Your task to perform on an android device: check data usage Image 0: 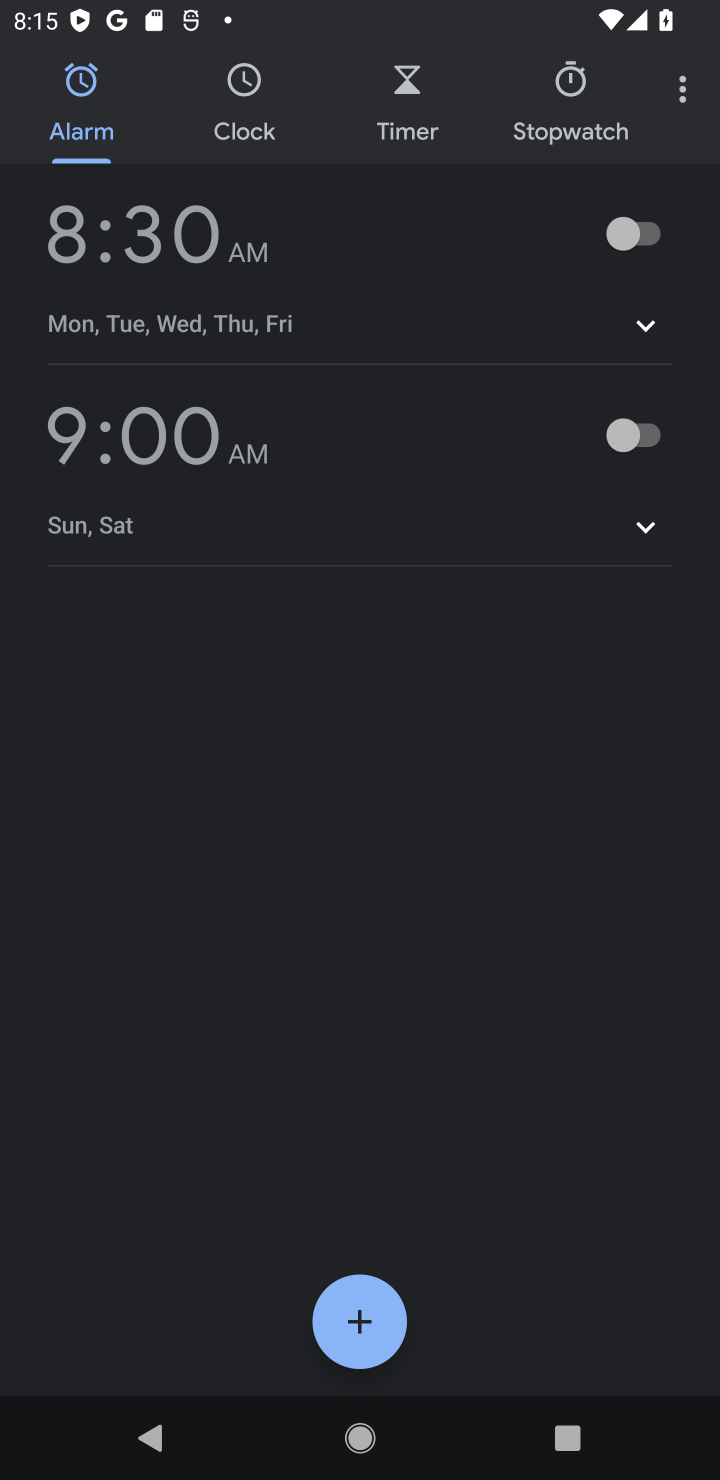
Step 0: press home button
Your task to perform on an android device: check data usage Image 1: 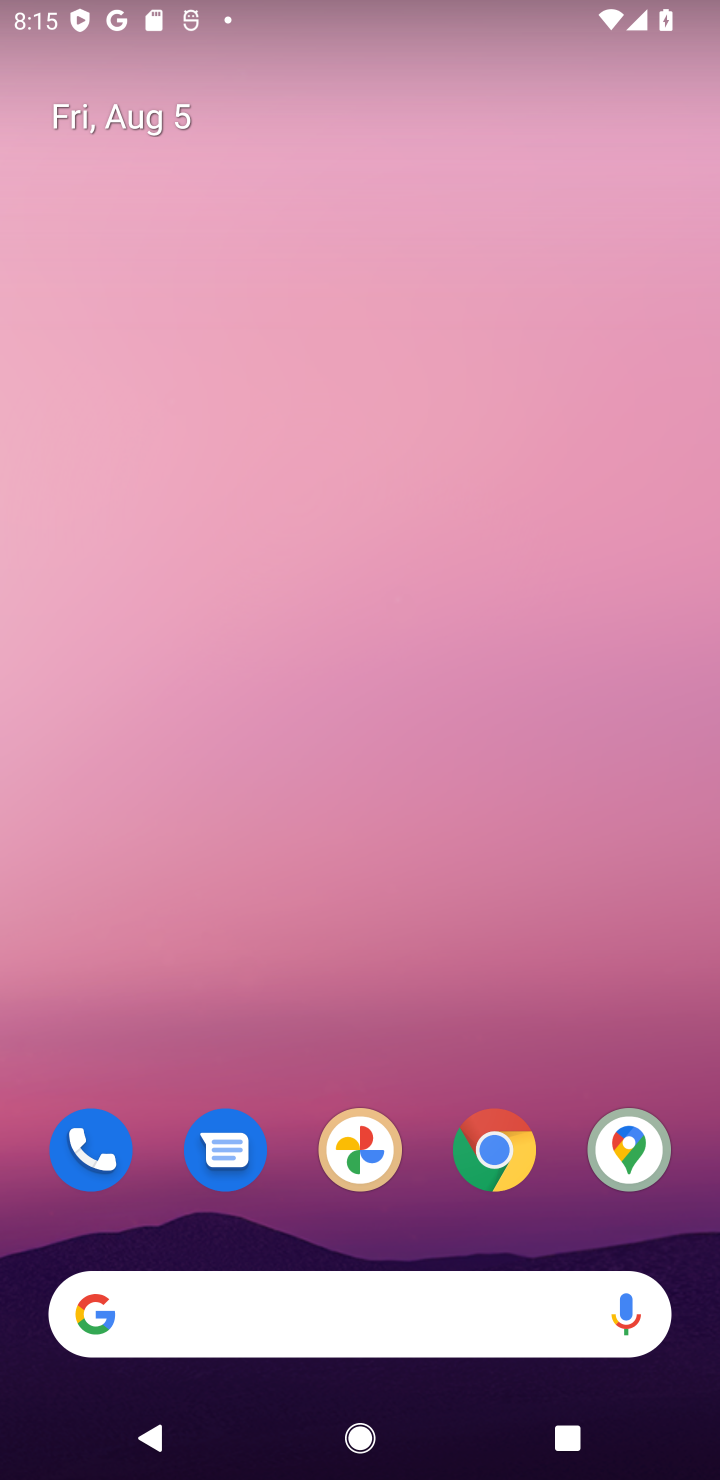
Step 1: drag from (529, 977) to (553, 358)
Your task to perform on an android device: check data usage Image 2: 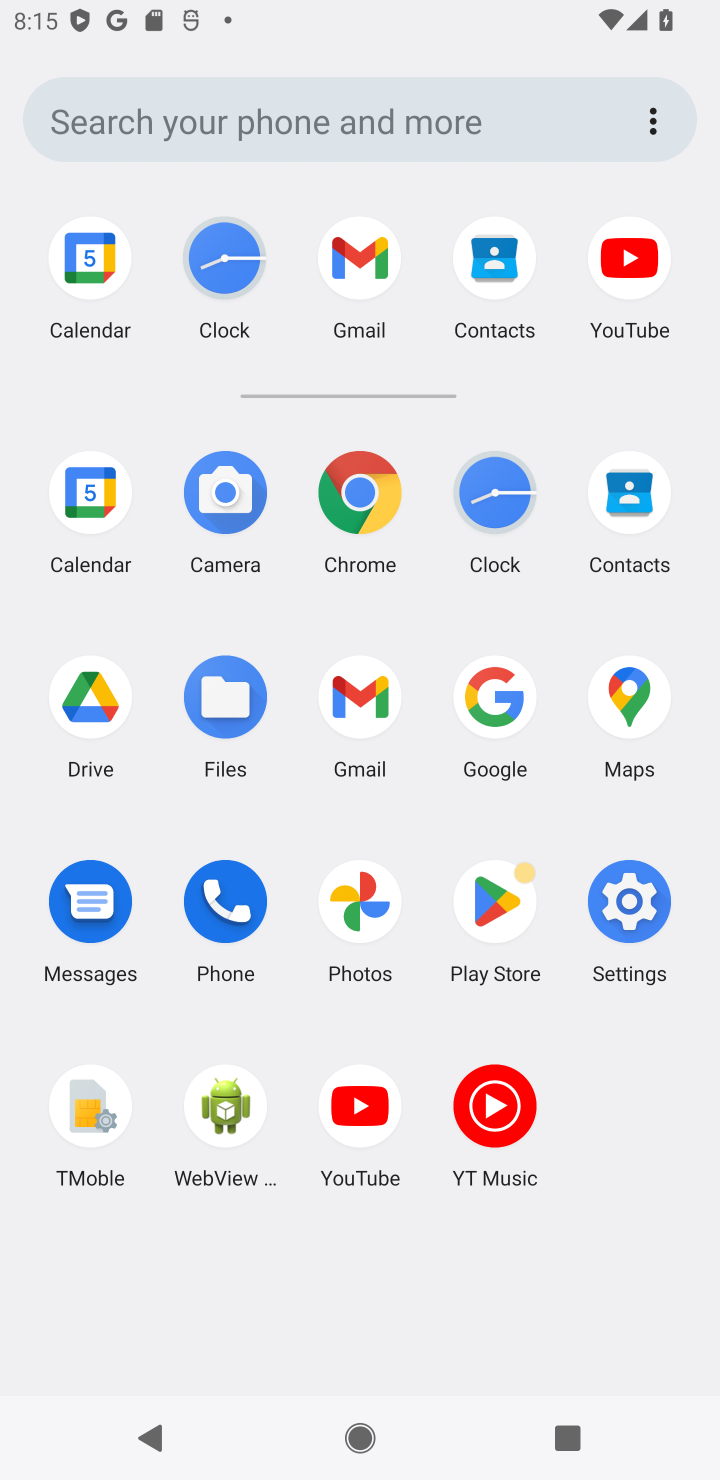
Step 2: click (637, 910)
Your task to perform on an android device: check data usage Image 3: 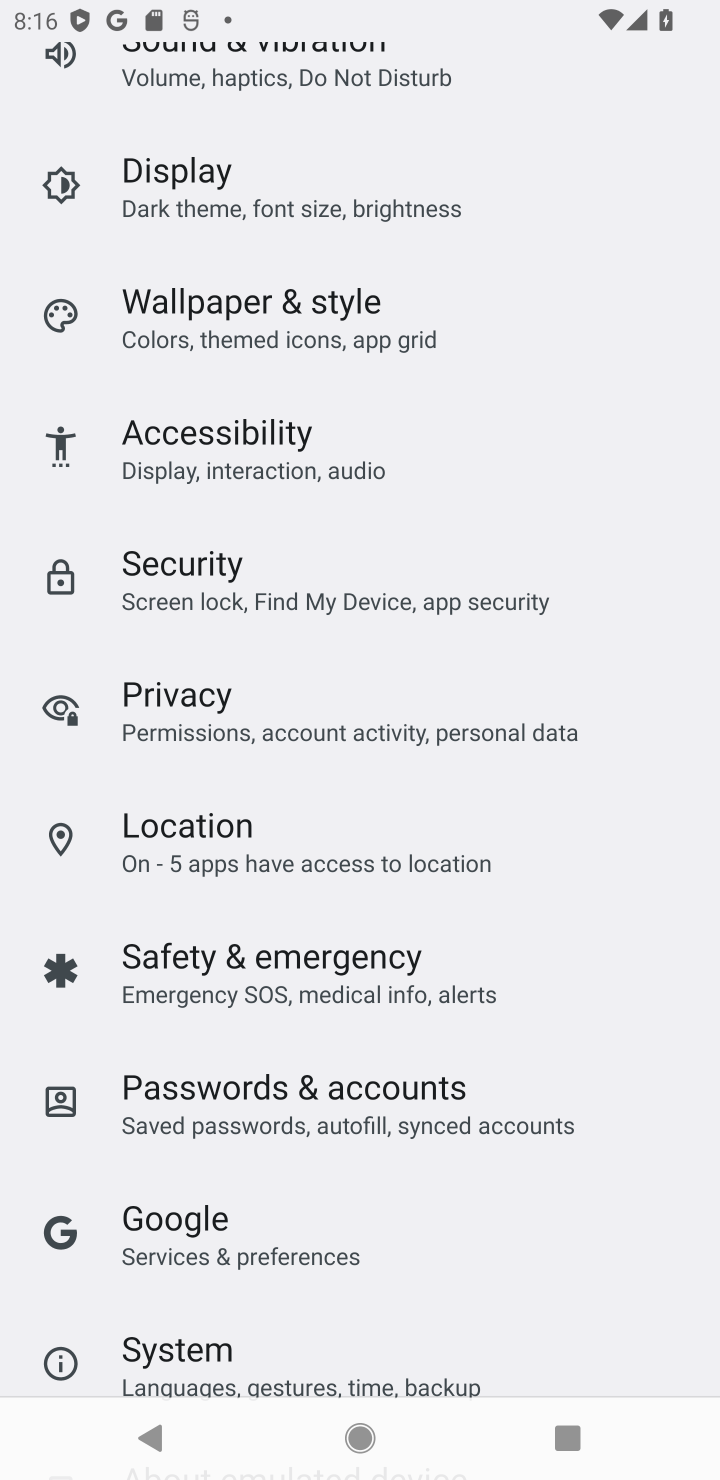
Step 3: drag from (576, 768) to (595, 967)
Your task to perform on an android device: check data usage Image 4: 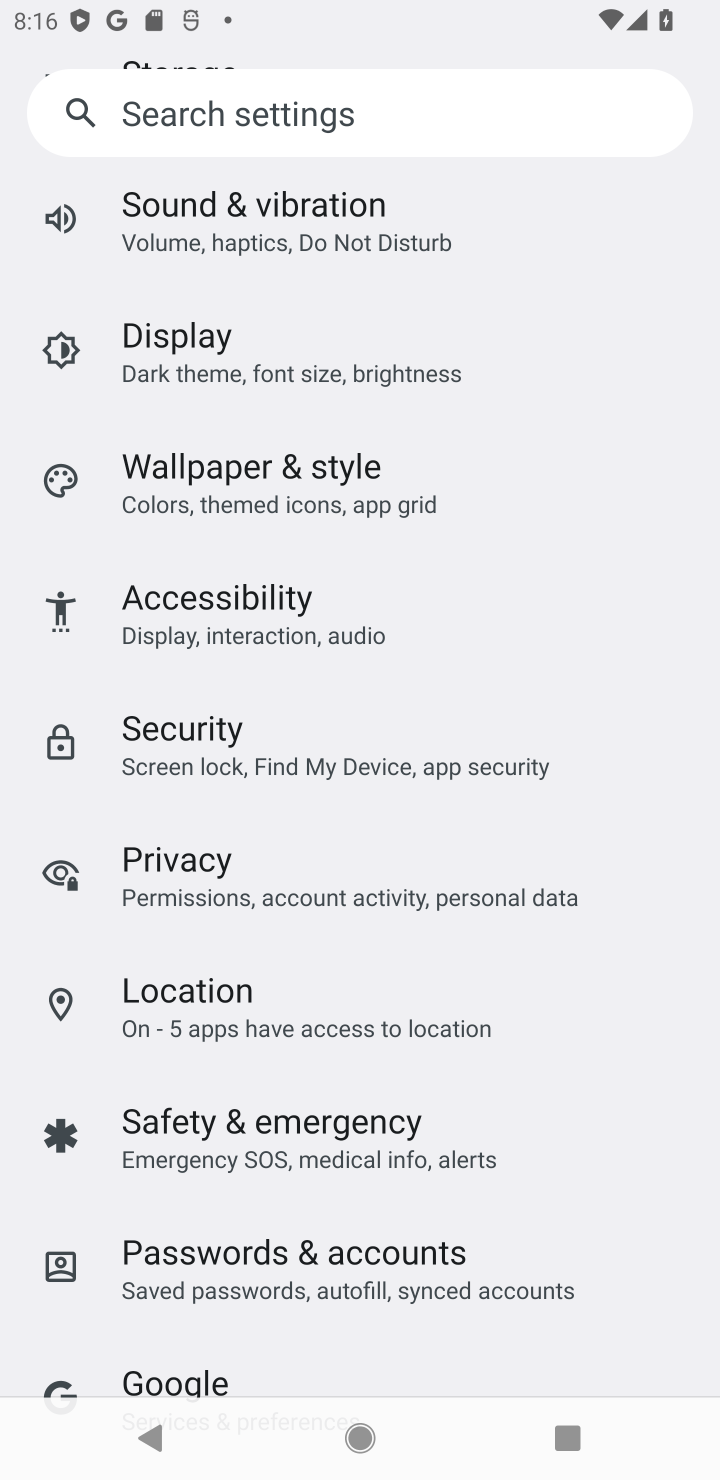
Step 4: drag from (657, 613) to (641, 982)
Your task to perform on an android device: check data usage Image 5: 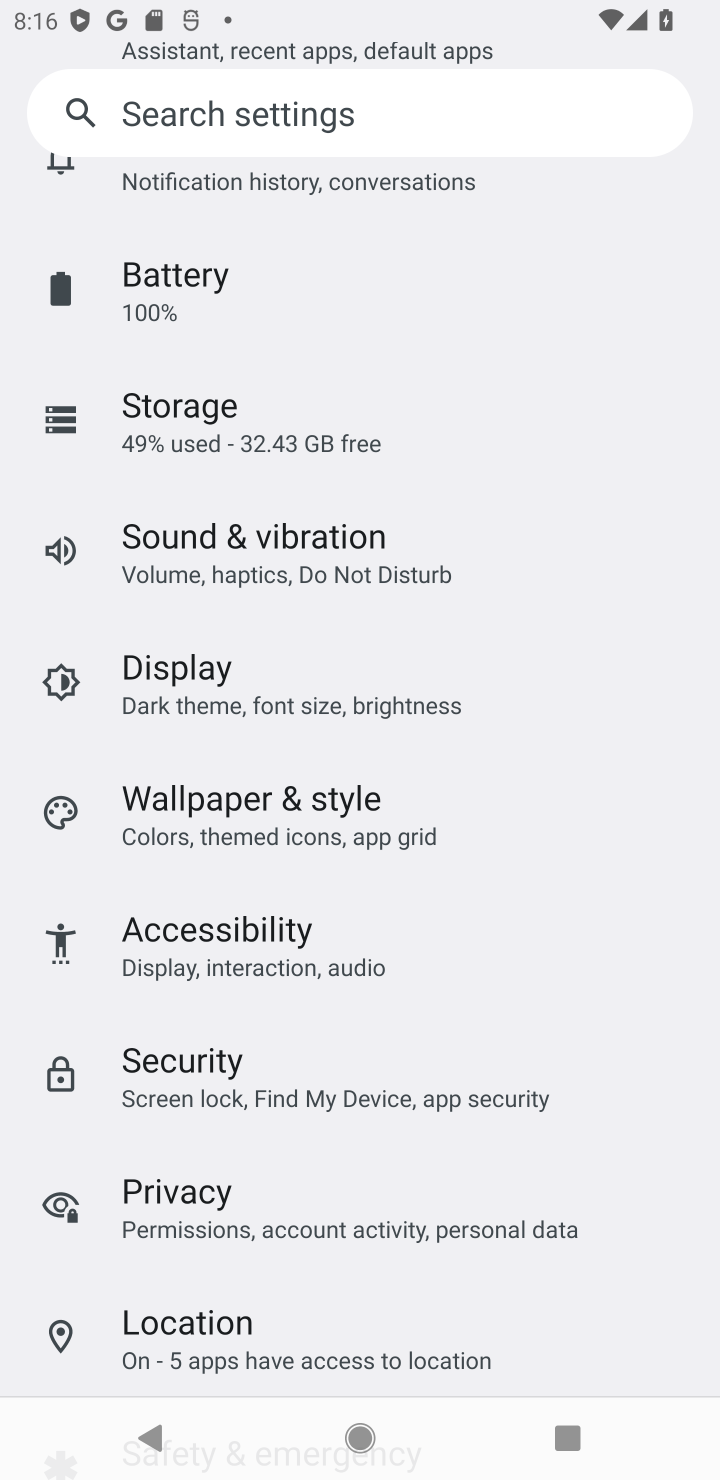
Step 5: drag from (631, 600) to (619, 907)
Your task to perform on an android device: check data usage Image 6: 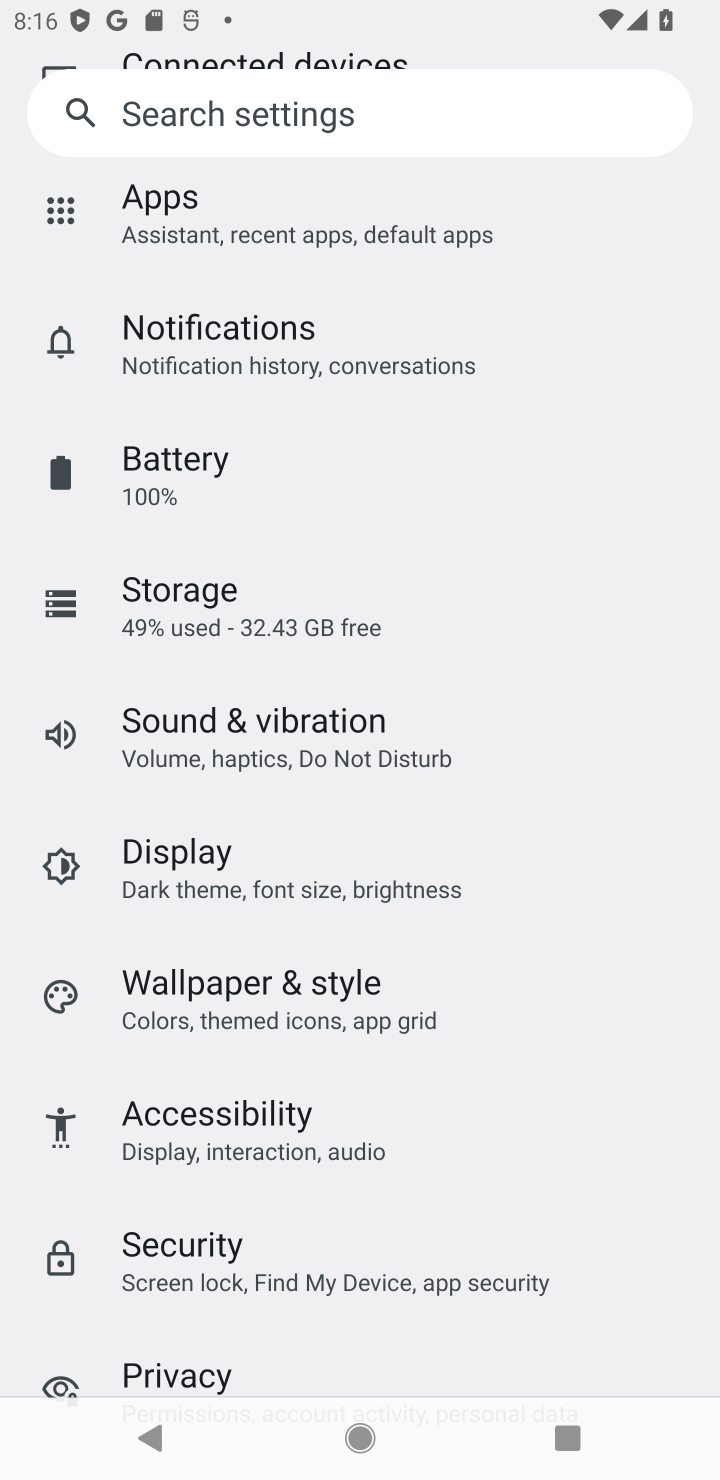
Step 6: drag from (602, 627) to (610, 927)
Your task to perform on an android device: check data usage Image 7: 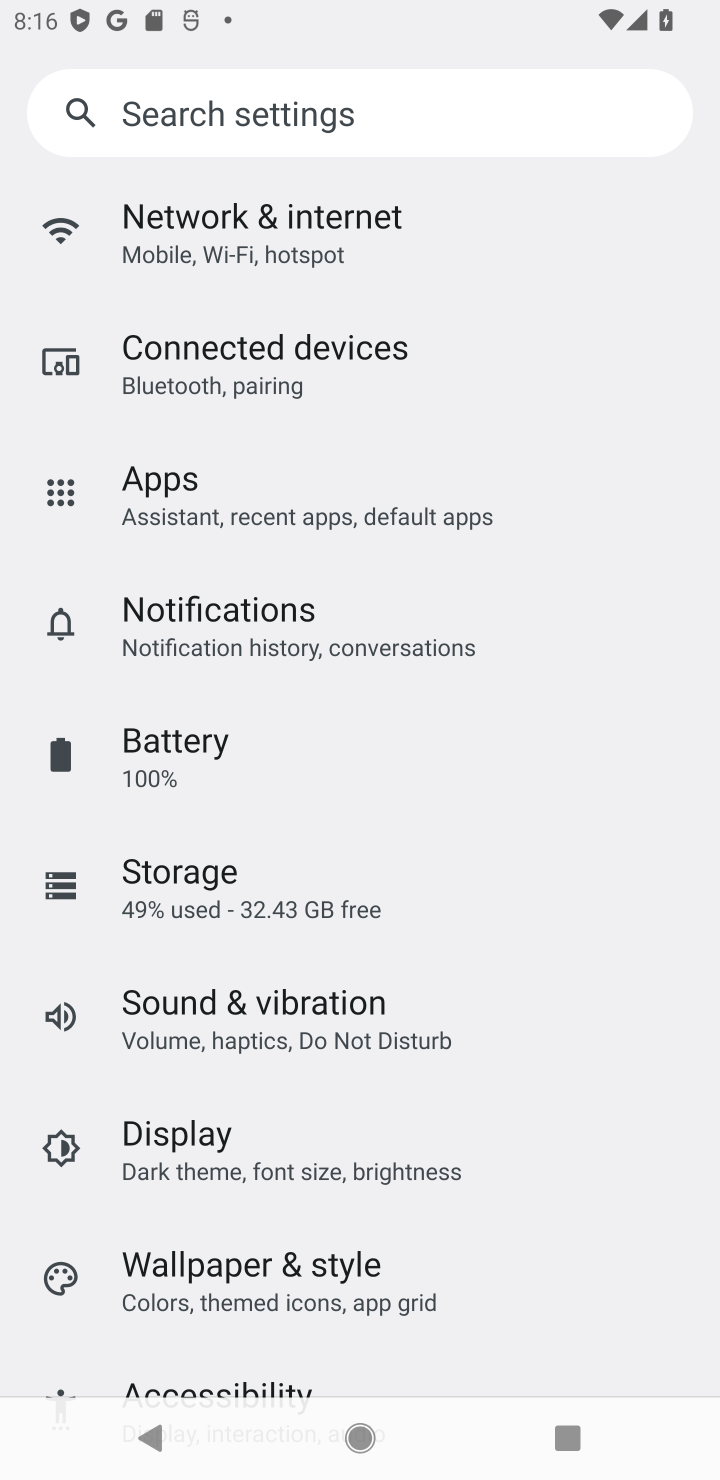
Step 7: drag from (605, 523) to (605, 882)
Your task to perform on an android device: check data usage Image 8: 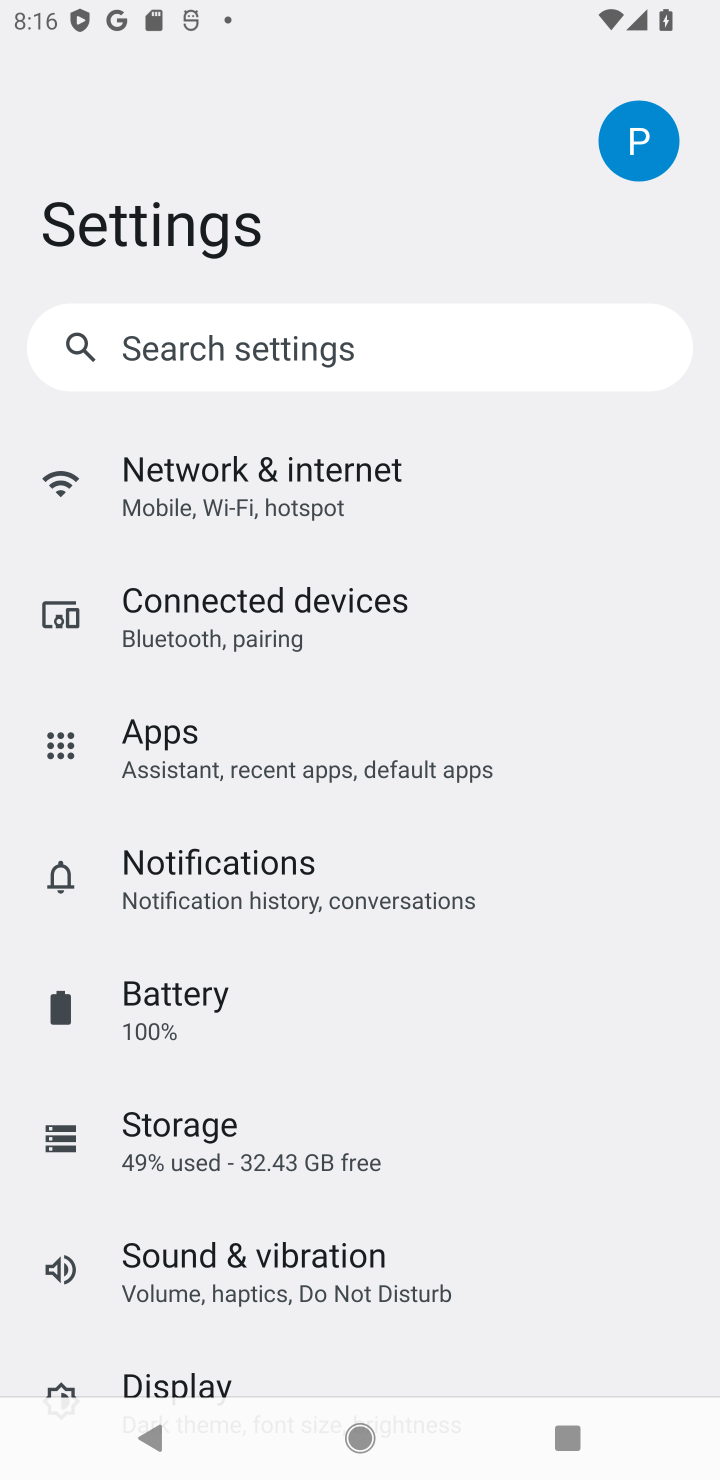
Step 8: click (491, 485)
Your task to perform on an android device: check data usage Image 9: 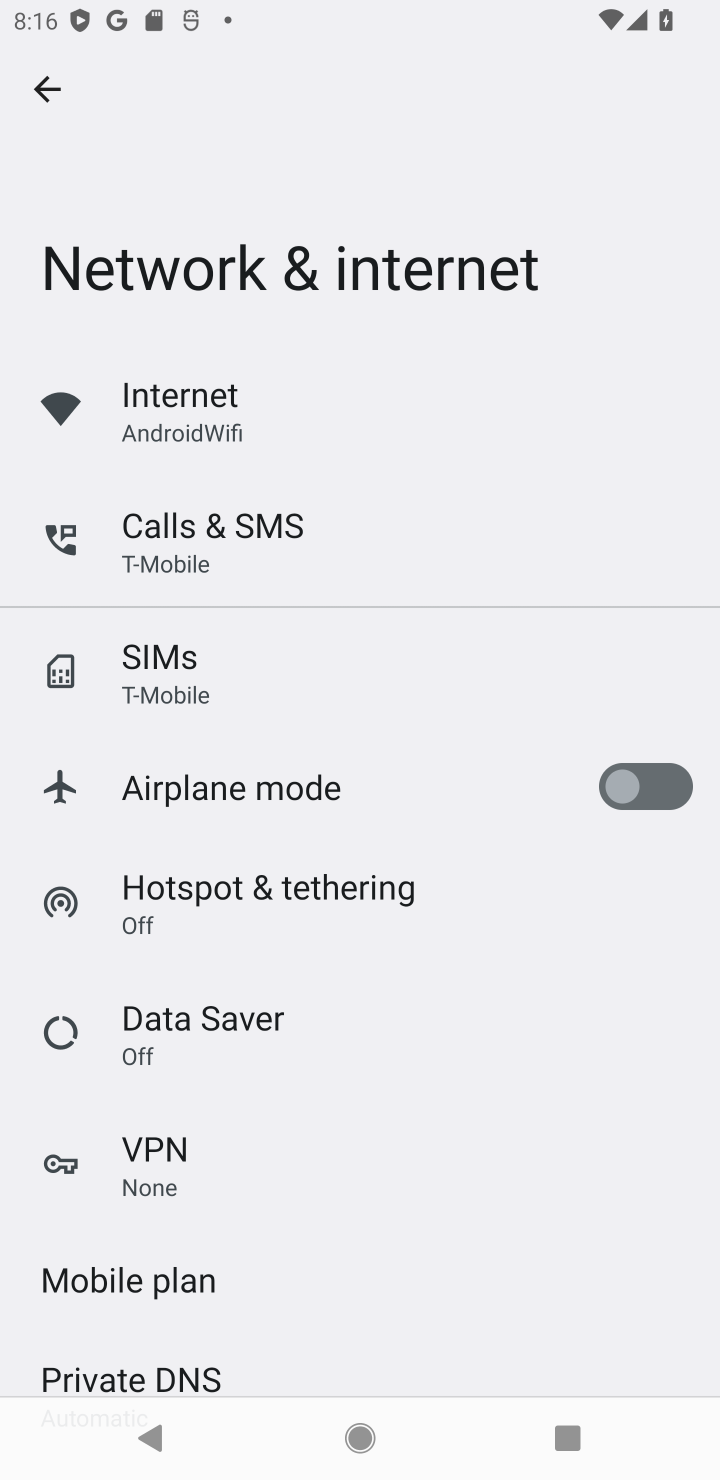
Step 9: click (215, 429)
Your task to perform on an android device: check data usage Image 10: 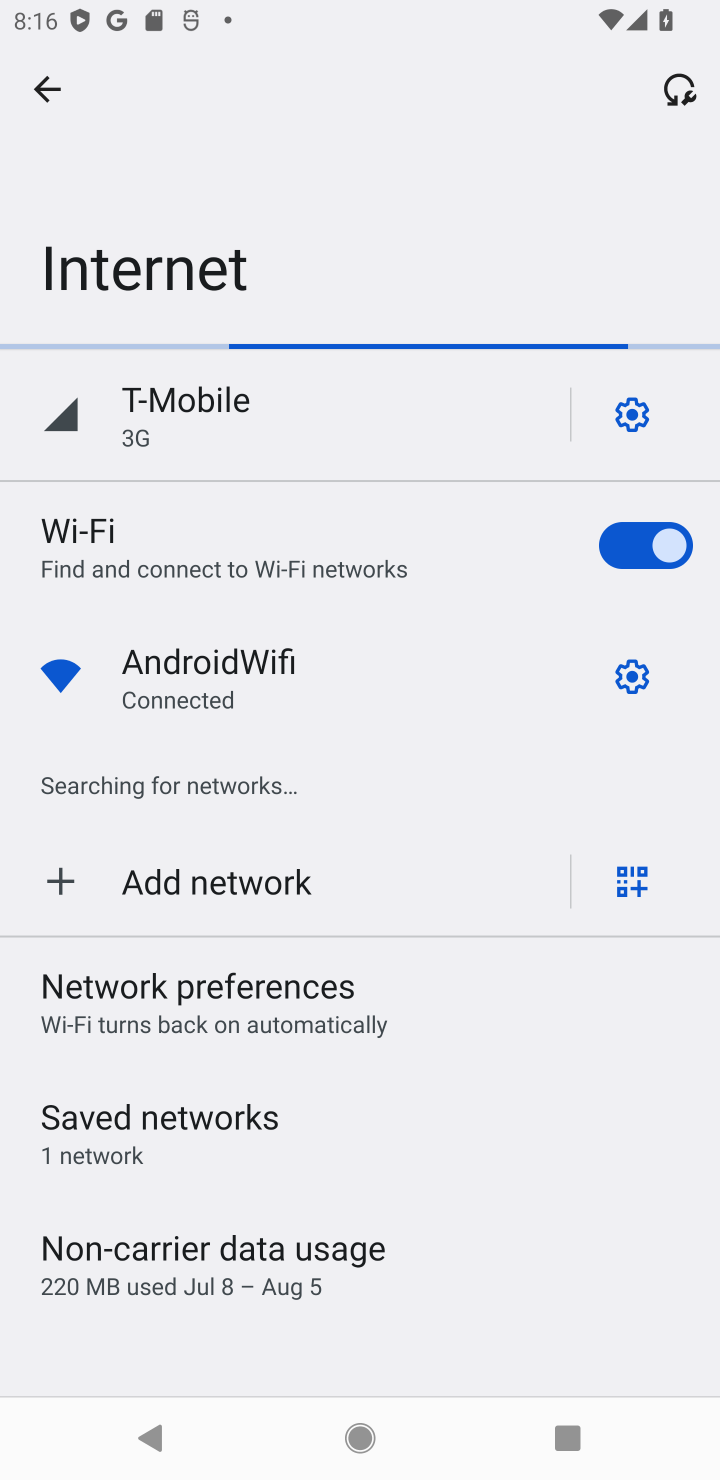
Step 10: click (308, 1275)
Your task to perform on an android device: check data usage Image 11: 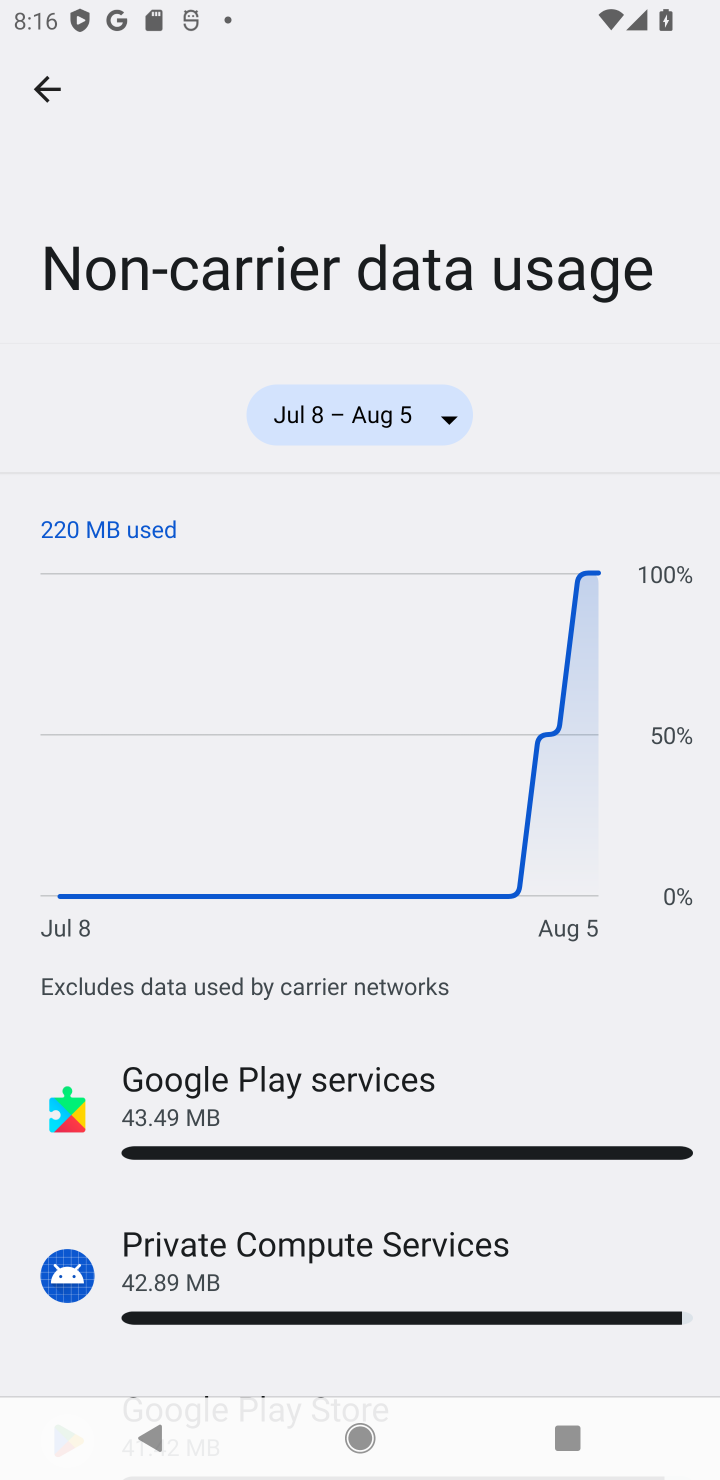
Step 11: task complete